Your task to perform on an android device: turn on improve location accuracy Image 0: 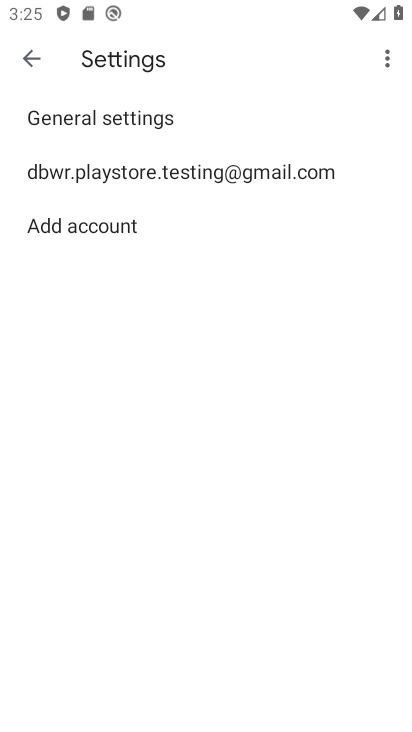
Step 0: press home button
Your task to perform on an android device: turn on improve location accuracy Image 1: 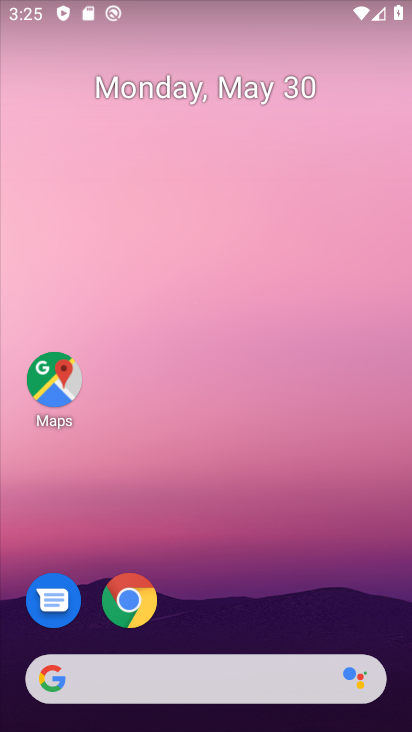
Step 1: drag from (208, 598) to (133, 87)
Your task to perform on an android device: turn on improve location accuracy Image 2: 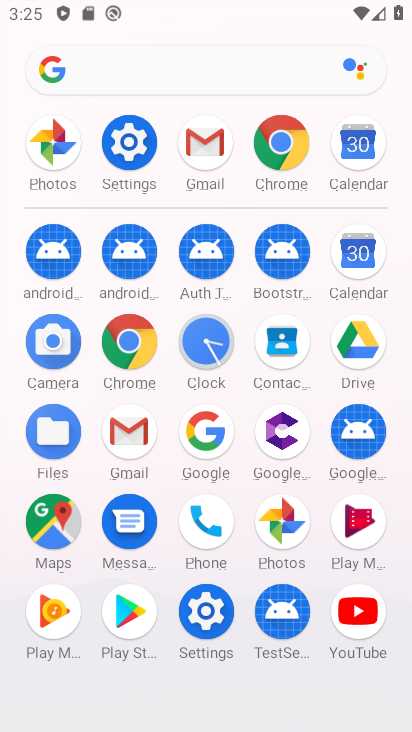
Step 2: click (136, 145)
Your task to perform on an android device: turn on improve location accuracy Image 3: 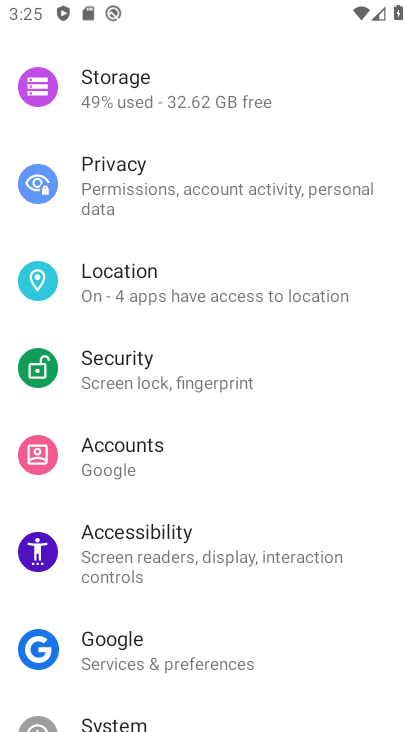
Step 3: click (170, 293)
Your task to perform on an android device: turn on improve location accuracy Image 4: 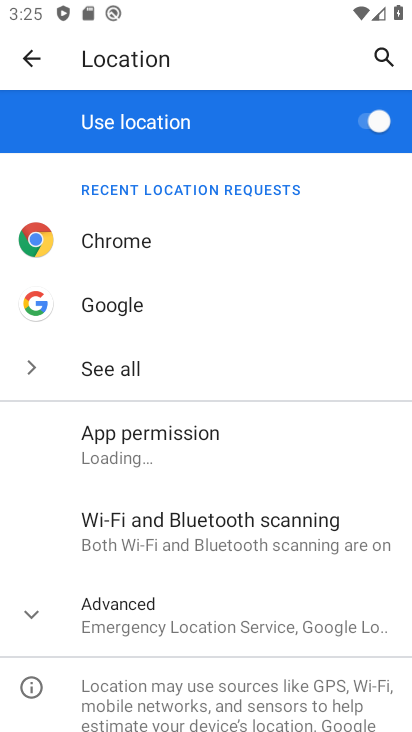
Step 4: drag from (242, 591) to (185, 266)
Your task to perform on an android device: turn on improve location accuracy Image 5: 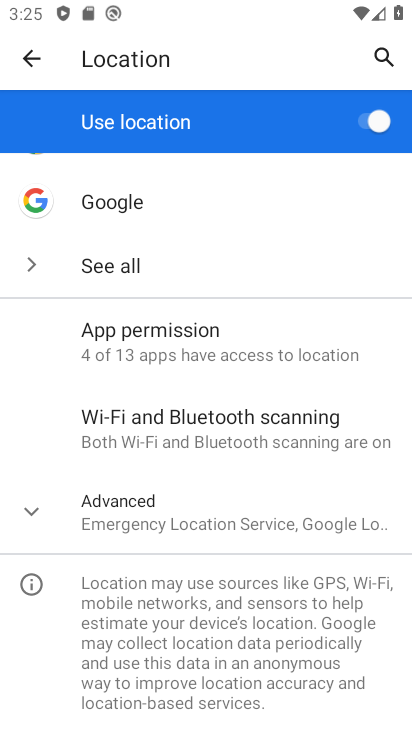
Step 5: click (189, 512)
Your task to perform on an android device: turn on improve location accuracy Image 6: 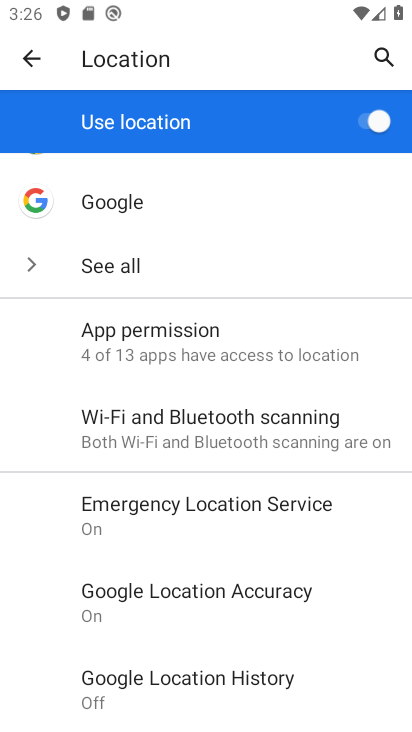
Step 6: drag from (262, 613) to (222, 378)
Your task to perform on an android device: turn on improve location accuracy Image 7: 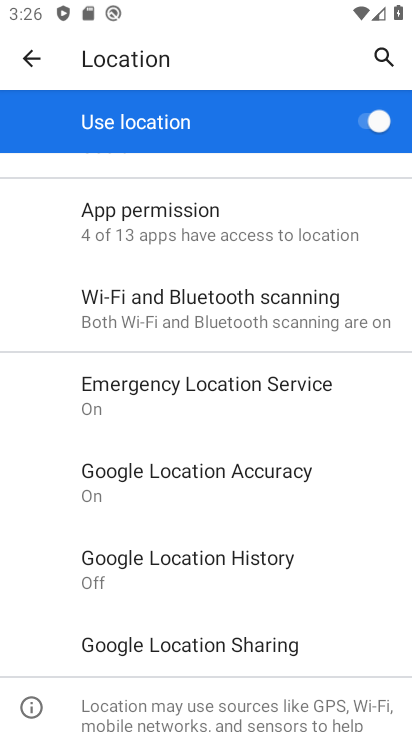
Step 7: click (235, 455)
Your task to perform on an android device: turn on improve location accuracy Image 8: 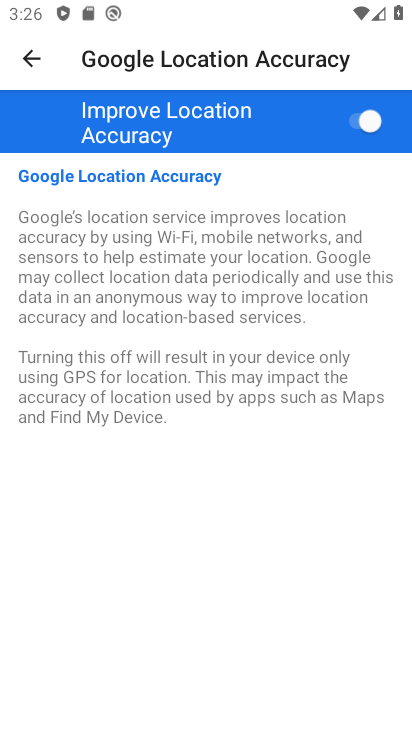
Step 8: task complete